Your task to perform on an android device: find which apps use the phone's location Image 0: 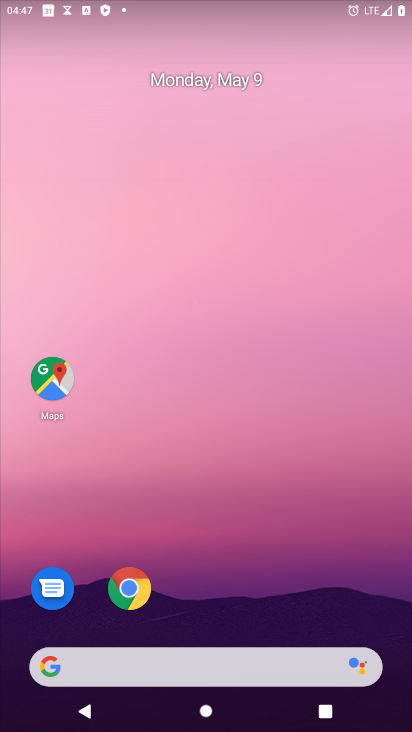
Step 0: drag from (300, 554) to (243, 69)
Your task to perform on an android device: find which apps use the phone's location Image 1: 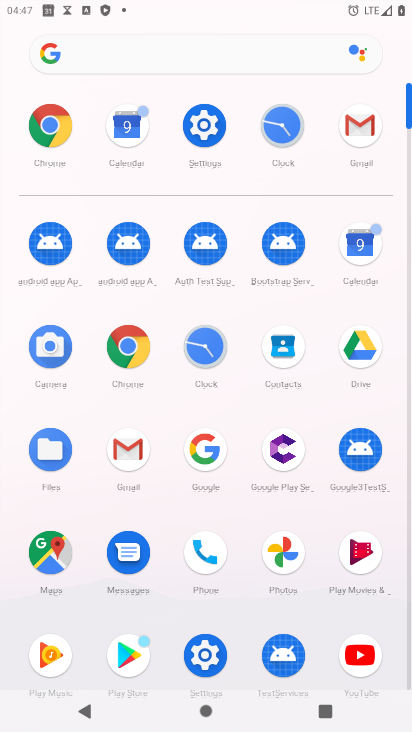
Step 1: click (205, 122)
Your task to perform on an android device: find which apps use the phone's location Image 2: 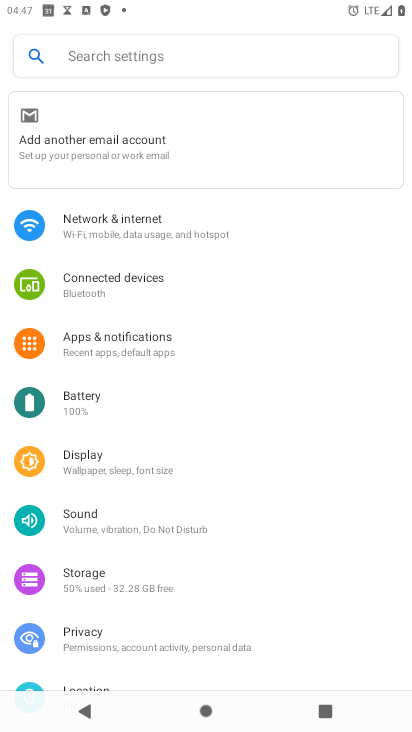
Step 2: drag from (223, 554) to (244, 198)
Your task to perform on an android device: find which apps use the phone's location Image 3: 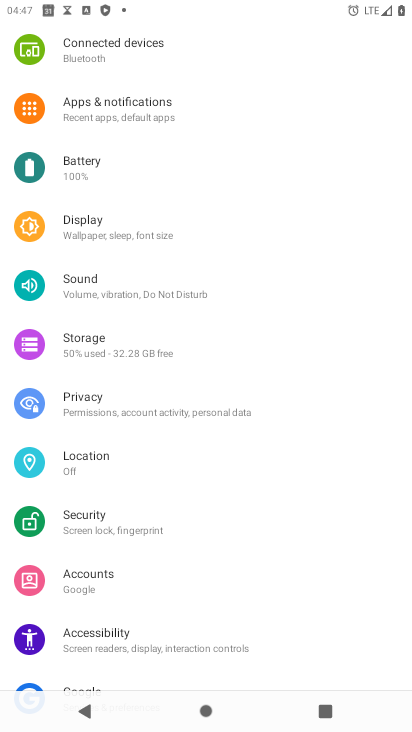
Step 3: click (149, 448)
Your task to perform on an android device: find which apps use the phone's location Image 4: 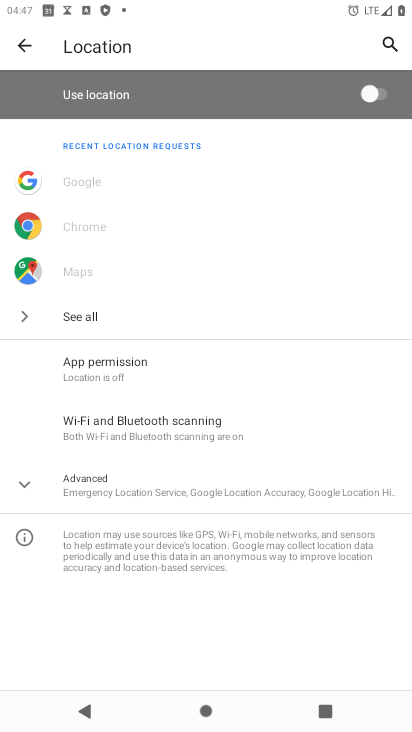
Step 4: click (146, 380)
Your task to perform on an android device: find which apps use the phone's location Image 5: 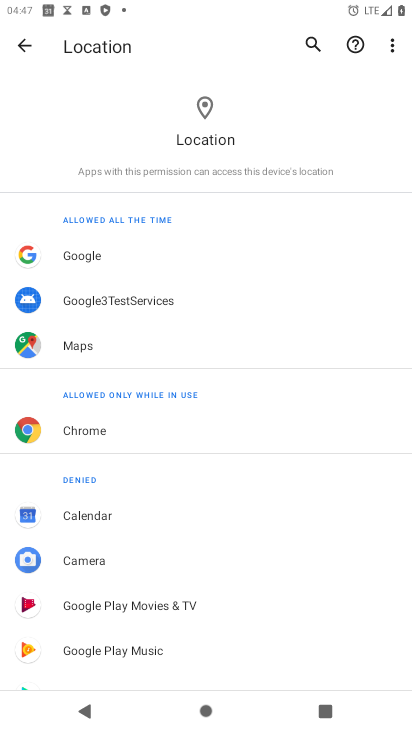
Step 5: task complete